Your task to perform on an android device: open app "Clock" Image 0: 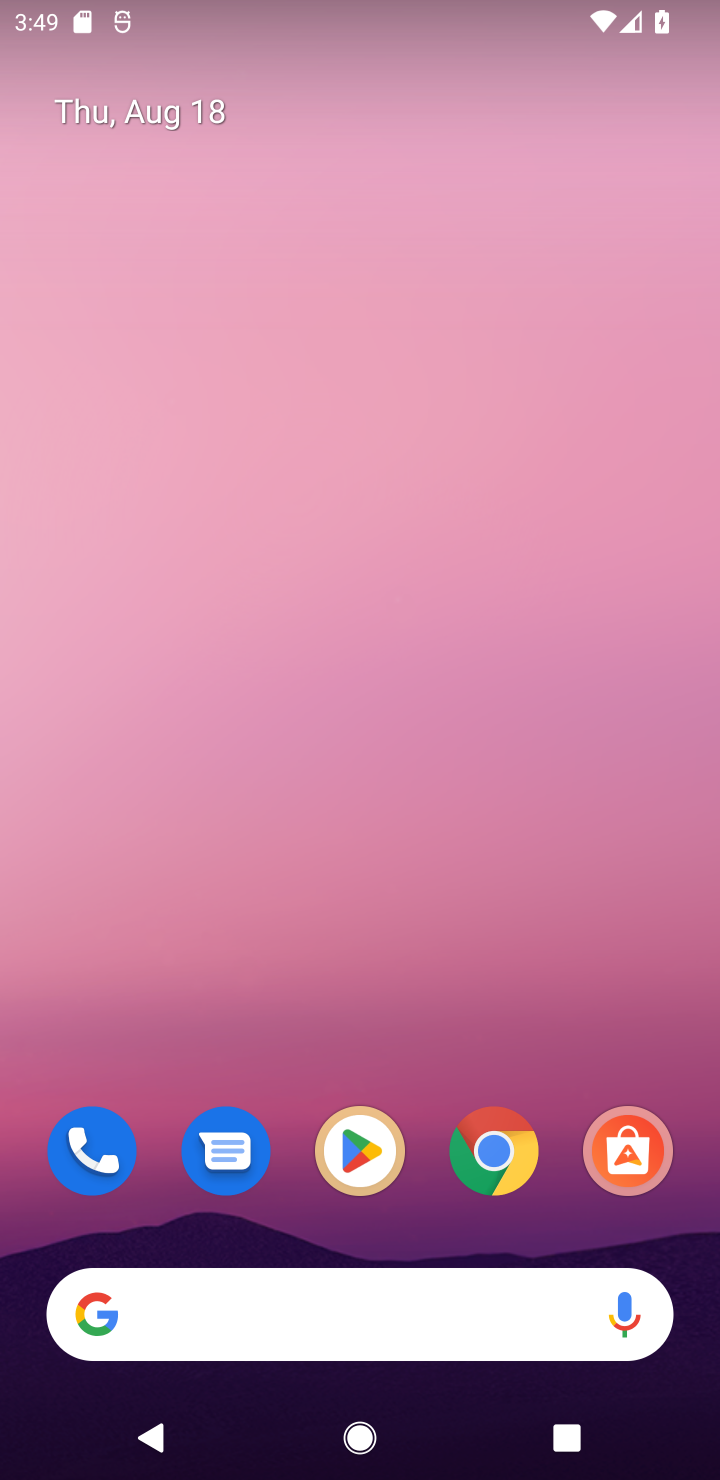
Step 0: drag from (424, 1249) to (370, 133)
Your task to perform on an android device: open app "Clock" Image 1: 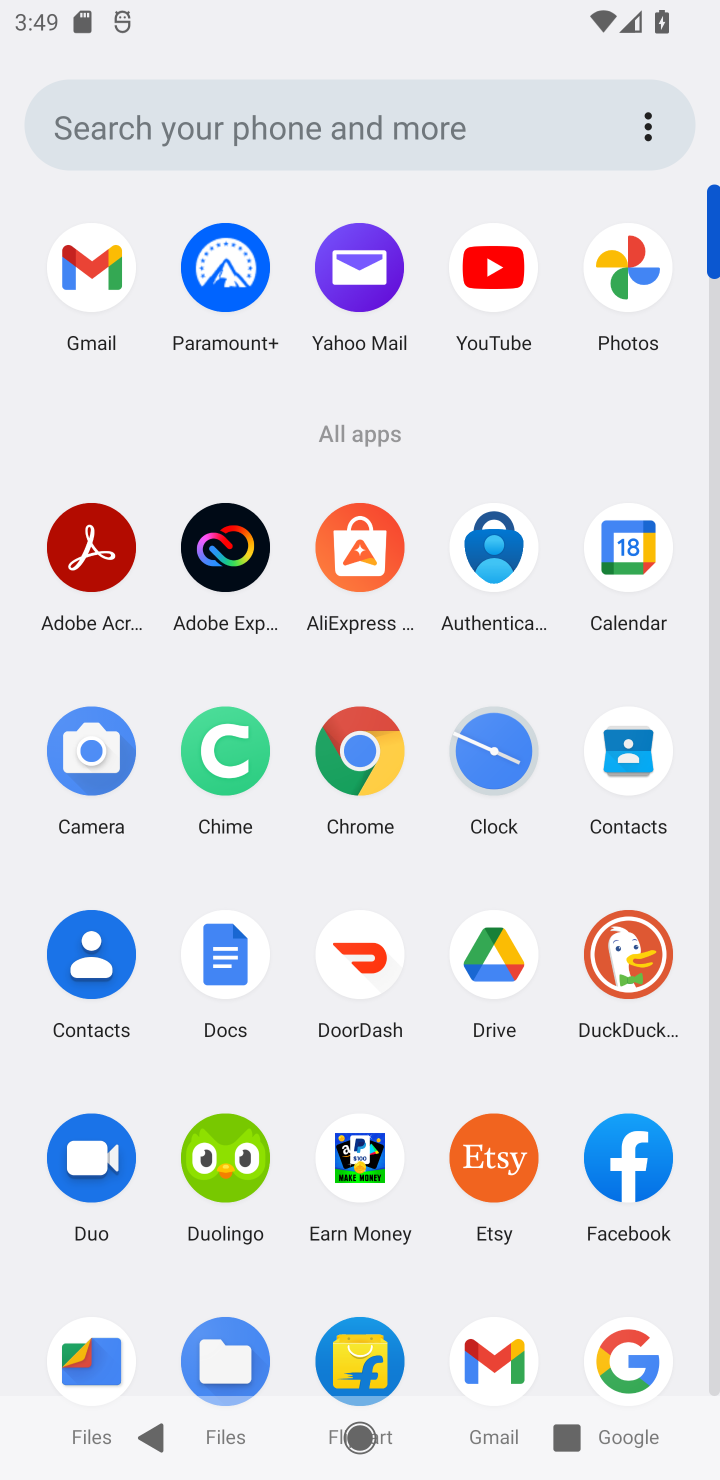
Step 1: click (495, 819)
Your task to perform on an android device: open app "Clock" Image 2: 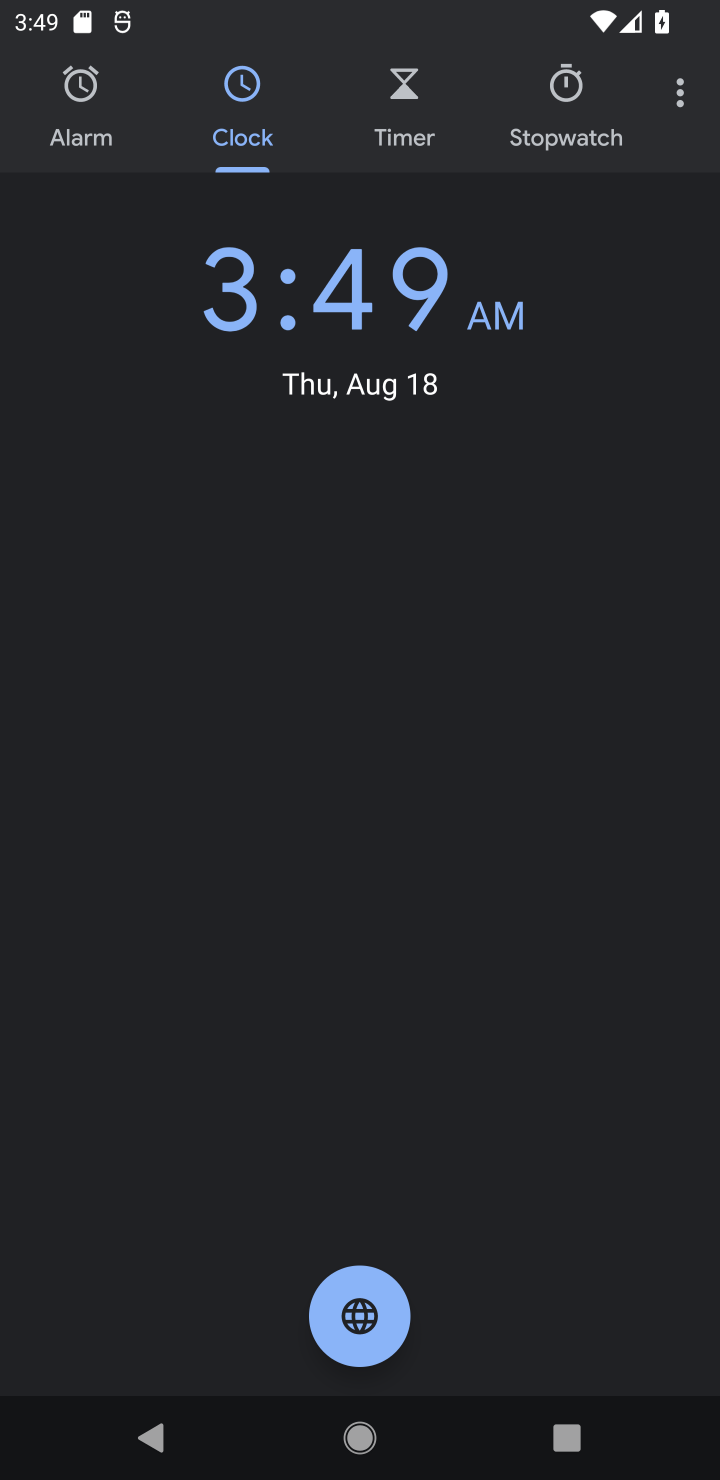
Step 2: task complete